Your task to perform on an android device: Open the calendar and show me this week's events? Image 0: 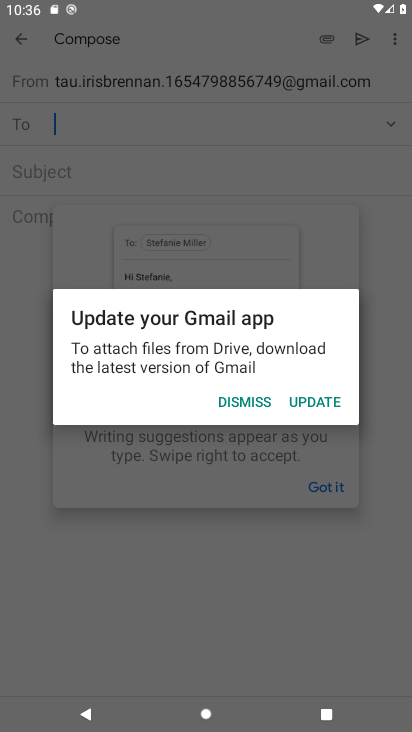
Step 0: press home button
Your task to perform on an android device: Open the calendar and show me this week's events? Image 1: 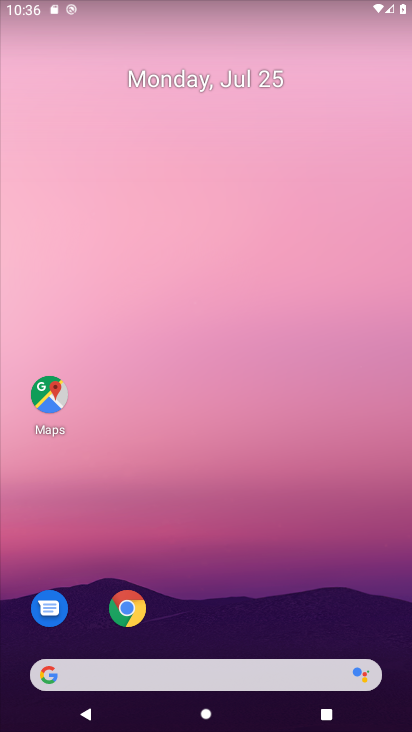
Step 1: drag from (221, 631) to (189, 257)
Your task to perform on an android device: Open the calendar and show me this week's events? Image 2: 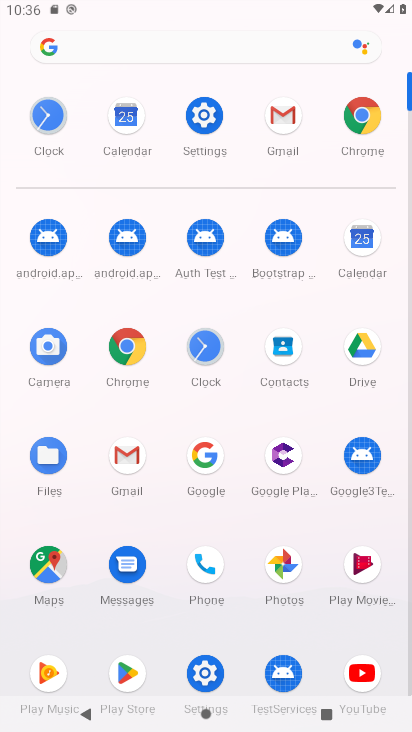
Step 2: click (121, 120)
Your task to perform on an android device: Open the calendar and show me this week's events? Image 3: 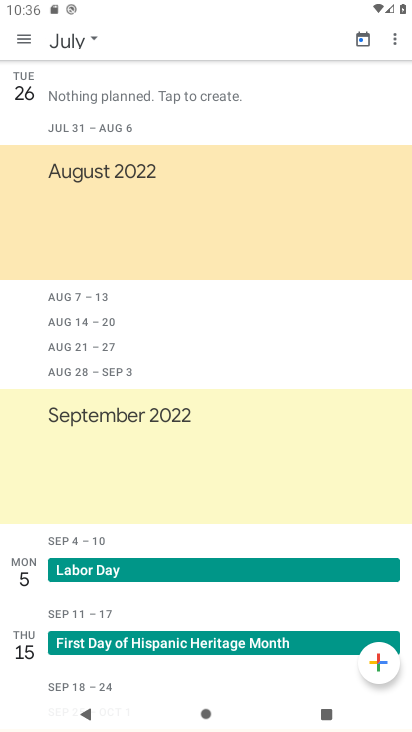
Step 3: click (19, 34)
Your task to perform on an android device: Open the calendar and show me this week's events? Image 4: 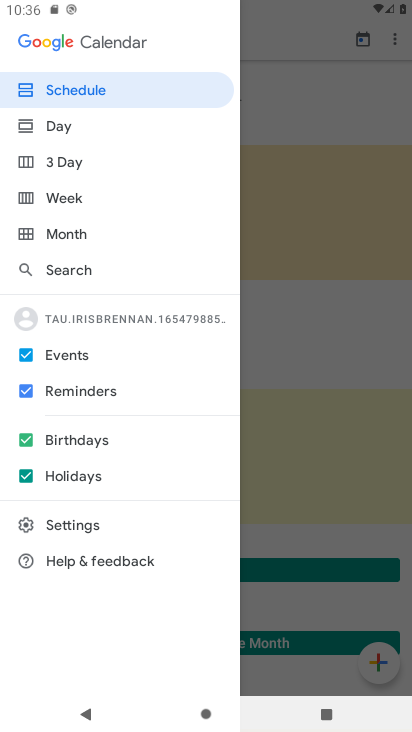
Step 4: click (325, 327)
Your task to perform on an android device: Open the calendar and show me this week's events? Image 5: 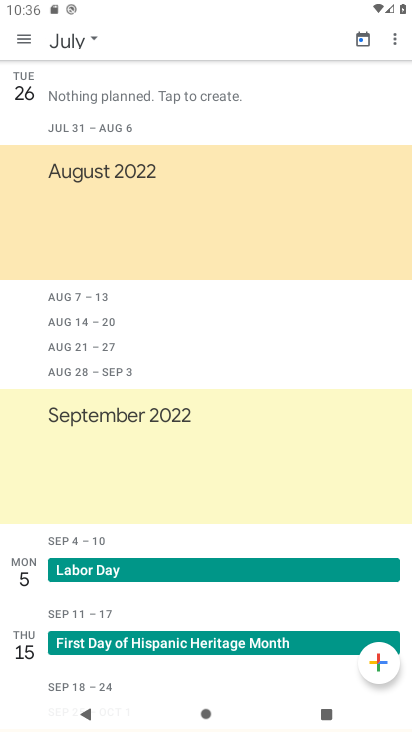
Step 5: click (23, 36)
Your task to perform on an android device: Open the calendar and show me this week's events? Image 6: 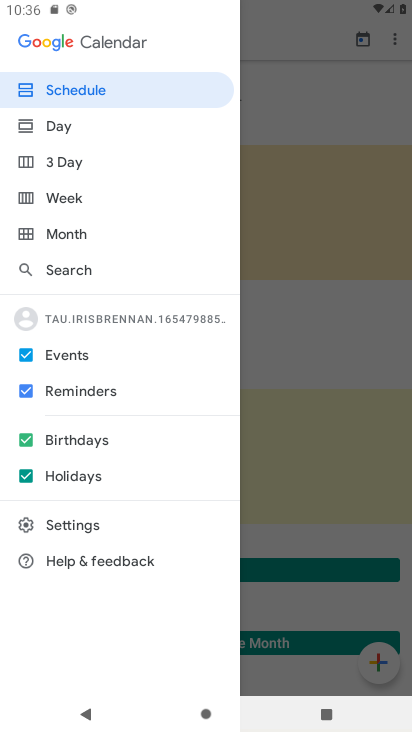
Step 6: click (73, 198)
Your task to perform on an android device: Open the calendar and show me this week's events? Image 7: 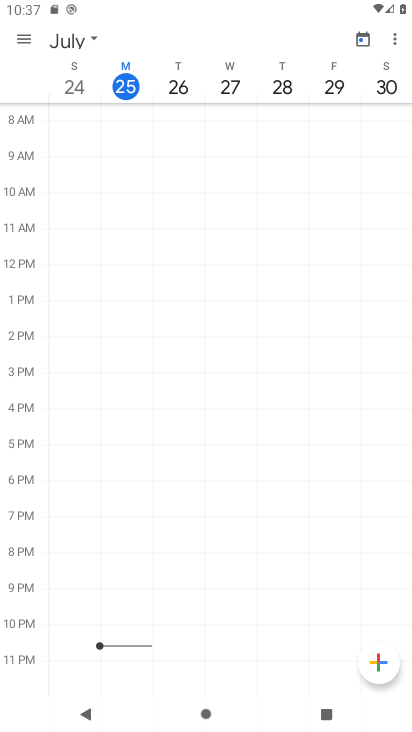
Step 7: click (186, 83)
Your task to perform on an android device: Open the calendar and show me this week's events? Image 8: 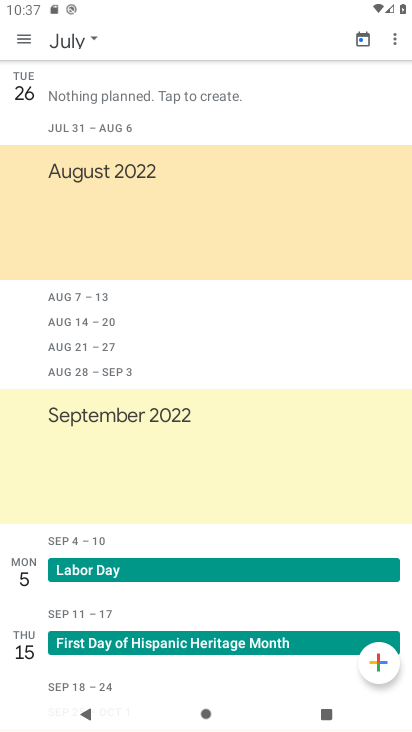
Step 8: task complete